Your task to perform on an android device: turn off priority inbox in the gmail app Image 0: 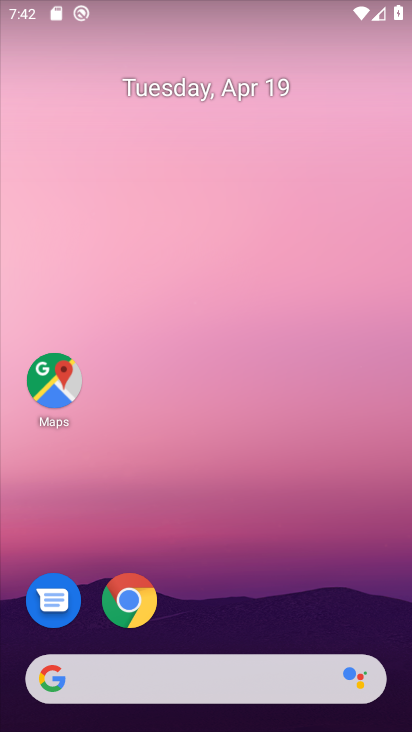
Step 0: drag from (376, 615) to (369, 94)
Your task to perform on an android device: turn off priority inbox in the gmail app Image 1: 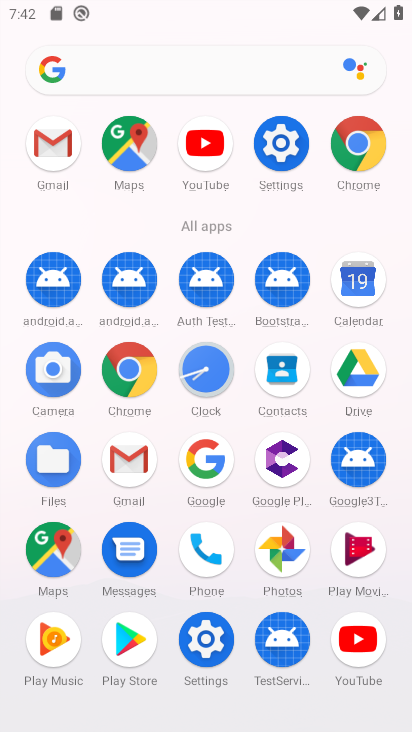
Step 1: click (135, 457)
Your task to perform on an android device: turn off priority inbox in the gmail app Image 2: 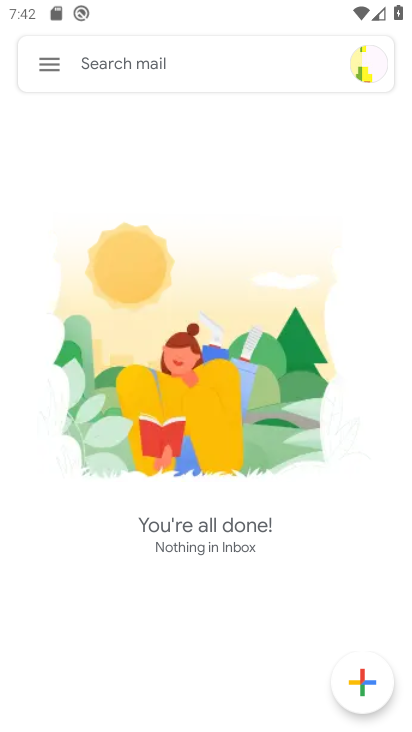
Step 2: click (51, 62)
Your task to perform on an android device: turn off priority inbox in the gmail app Image 3: 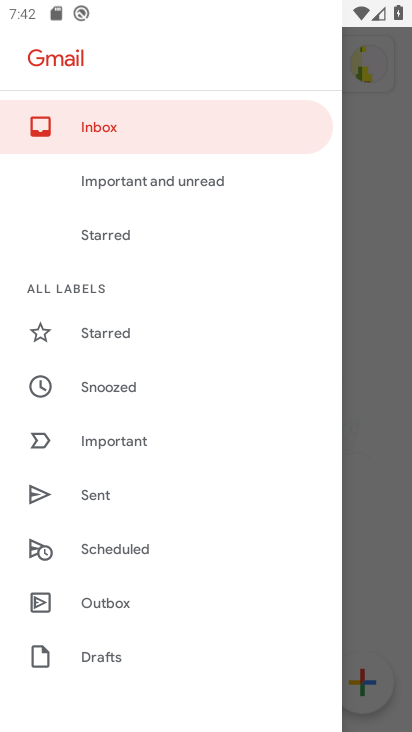
Step 3: drag from (274, 602) to (283, 413)
Your task to perform on an android device: turn off priority inbox in the gmail app Image 4: 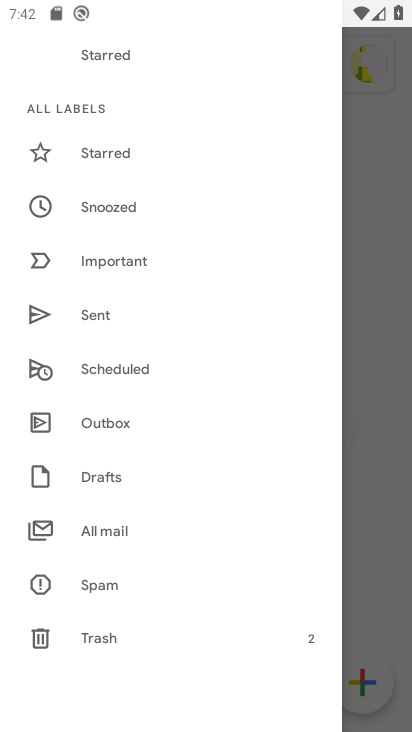
Step 4: drag from (279, 596) to (274, 379)
Your task to perform on an android device: turn off priority inbox in the gmail app Image 5: 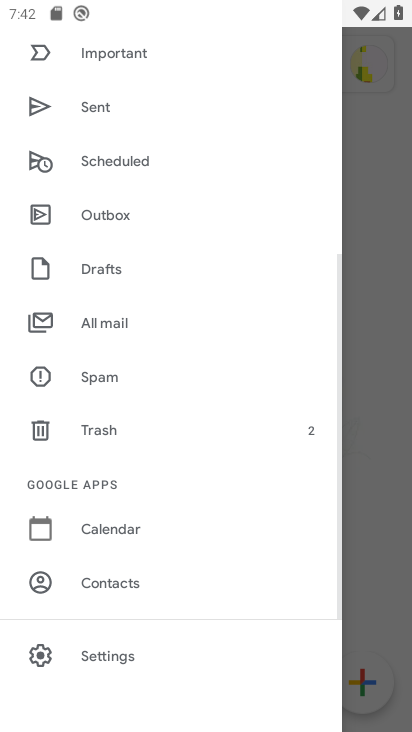
Step 5: drag from (246, 568) to (239, 365)
Your task to perform on an android device: turn off priority inbox in the gmail app Image 6: 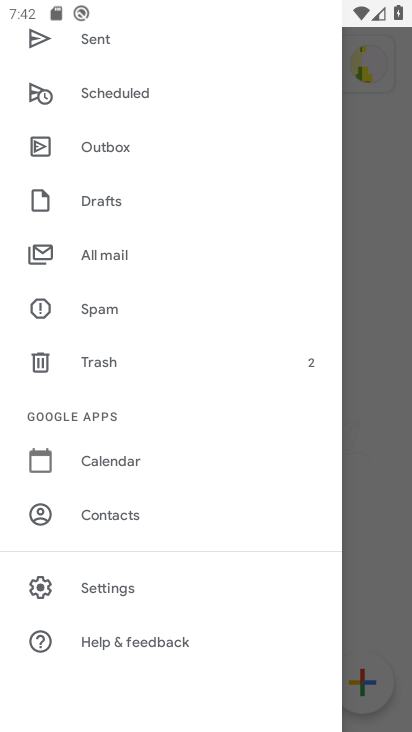
Step 6: click (129, 592)
Your task to perform on an android device: turn off priority inbox in the gmail app Image 7: 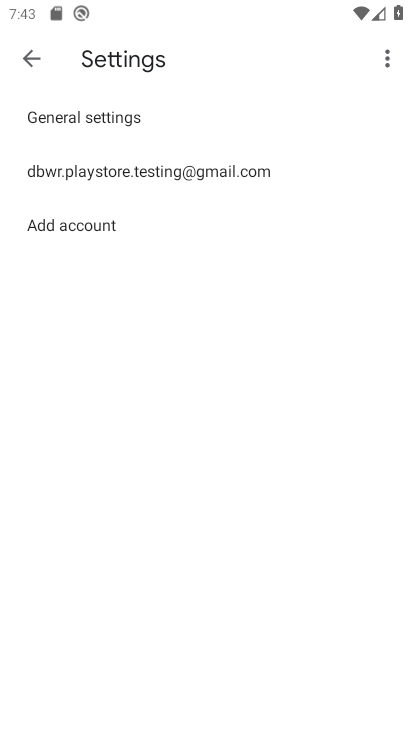
Step 7: click (139, 168)
Your task to perform on an android device: turn off priority inbox in the gmail app Image 8: 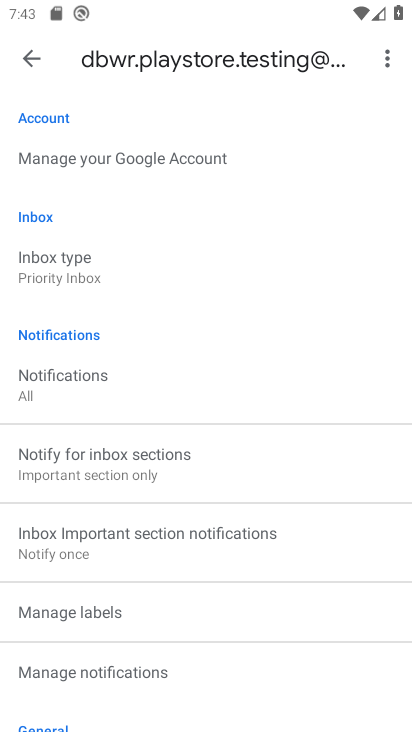
Step 8: drag from (316, 604) to (312, 418)
Your task to perform on an android device: turn off priority inbox in the gmail app Image 9: 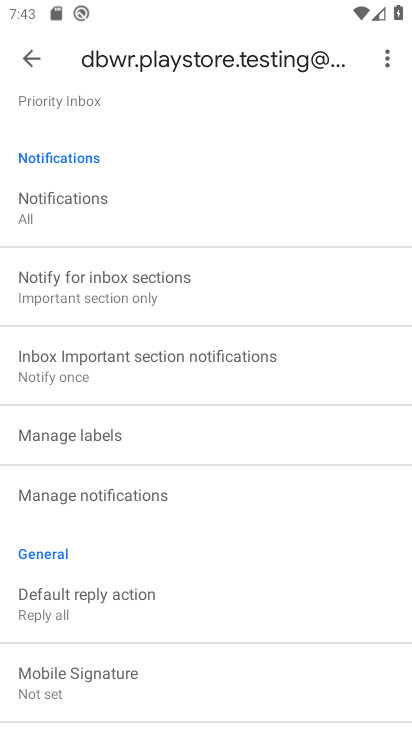
Step 9: drag from (315, 580) to (323, 405)
Your task to perform on an android device: turn off priority inbox in the gmail app Image 10: 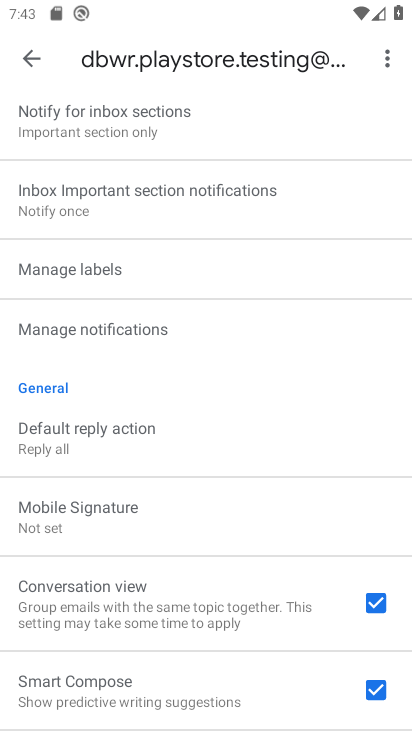
Step 10: drag from (319, 615) to (350, 399)
Your task to perform on an android device: turn off priority inbox in the gmail app Image 11: 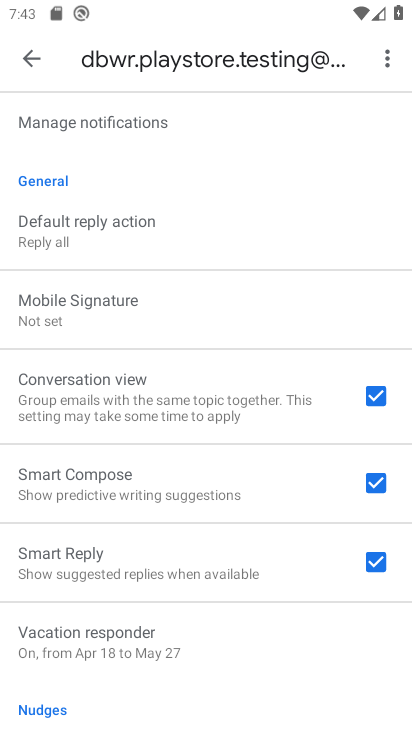
Step 11: drag from (306, 647) to (307, 436)
Your task to perform on an android device: turn off priority inbox in the gmail app Image 12: 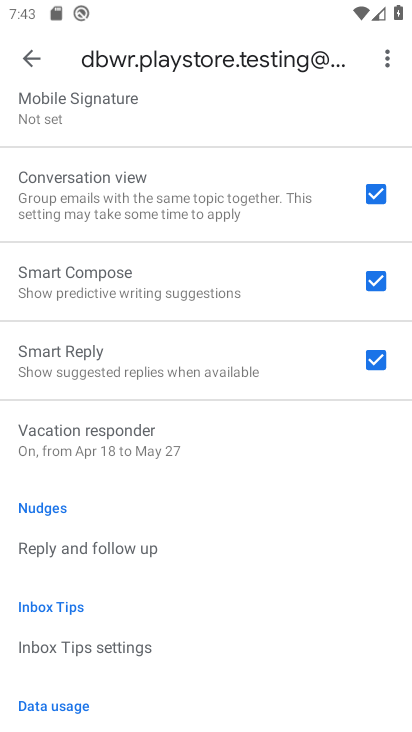
Step 12: drag from (294, 628) to (300, 407)
Your task to perform on an android device: turn off priority inbox in the gmail app Image 13: 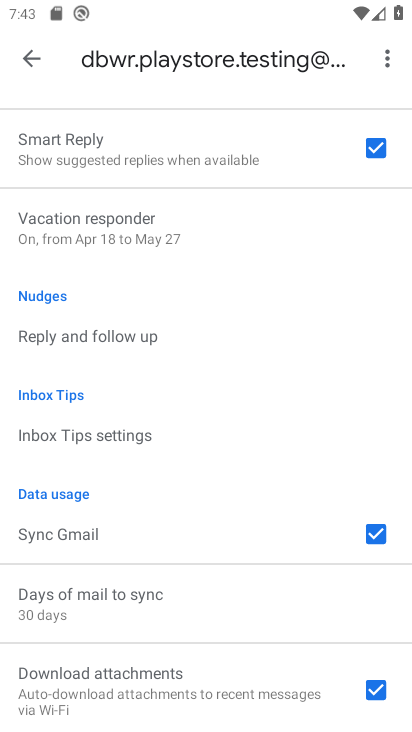
Step 13: drag from (315, 258) to (313, 487)
Your task to perform on an android device: turn off priority inbox in the gmail app Image 14: 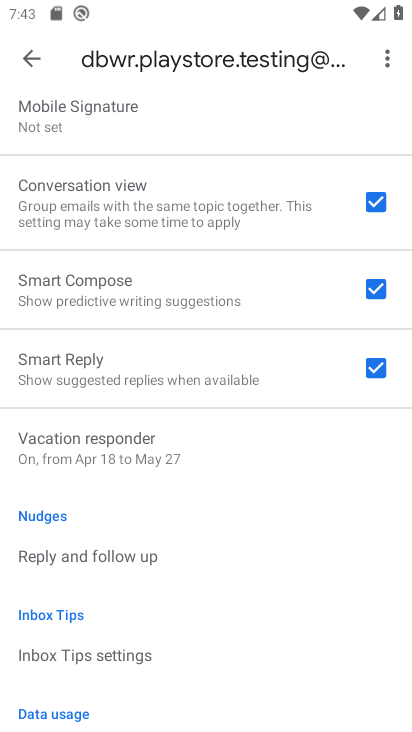
Step 14: drag from (299, 279) to (303, 525)
Your task to perform on an android device: turn off priority inbox in the gmail app Image 15: 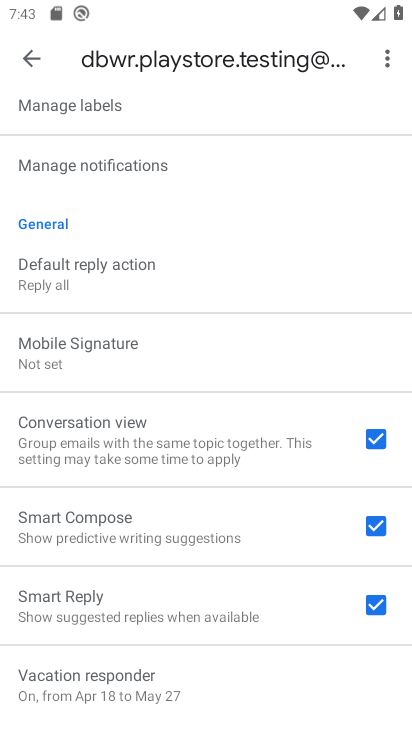
Step 15: drag from (286, 243) to (291, 462)
Your task to perform on an android device: turn off priority inbox in the gmail app Image 16: 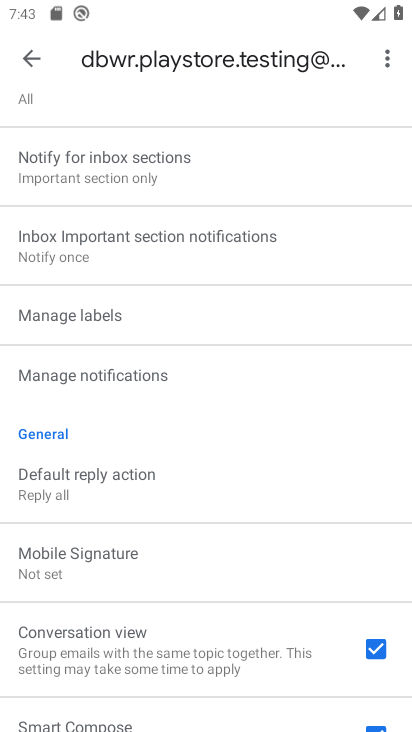
Step 16: drag from (296, 173) to (297, 392)
Your task to perform on an android device: turn off priority inbox in the gmail app Image 17: 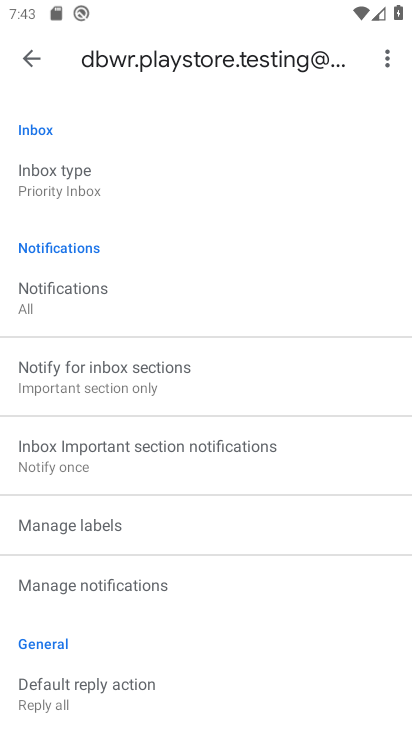
Step 17: click (75, 180)
Your task to perform on an android device: turn off priority inbox in the gmail app Image 18: 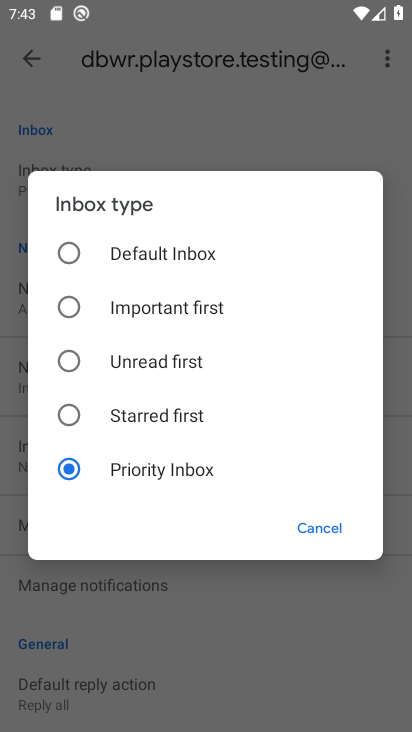
Step 18: click (136, 254)
Your task to perform on an android device: turn off priority inbox in the gmail app Image 19: 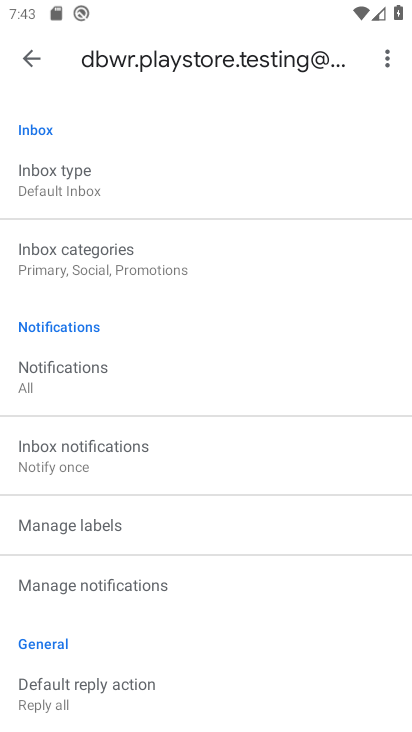
Step 19: task complete